Your task to perform on an android device: Open display settings Image 0: 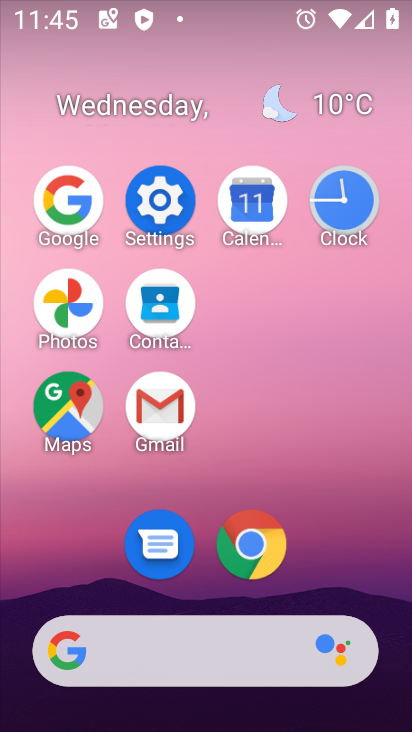
Step 0: click (148, 194)
Your task to perform on an android device: Open display settings Image 1: 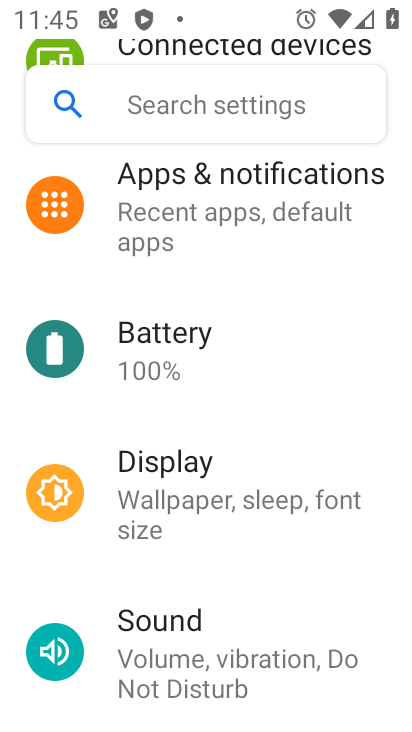
Step 1: click (218, 478)
Your task to perform on an android device: Open display settings Image 2: 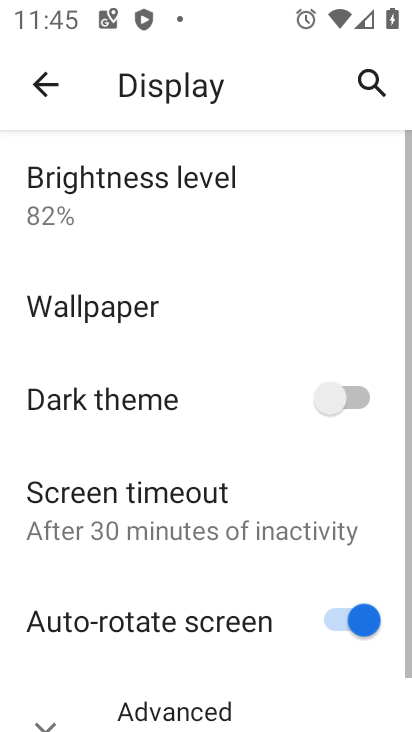
Step 2: task complete